Your task to perform on an android device: toggle data saver in the chrome app Image 0: 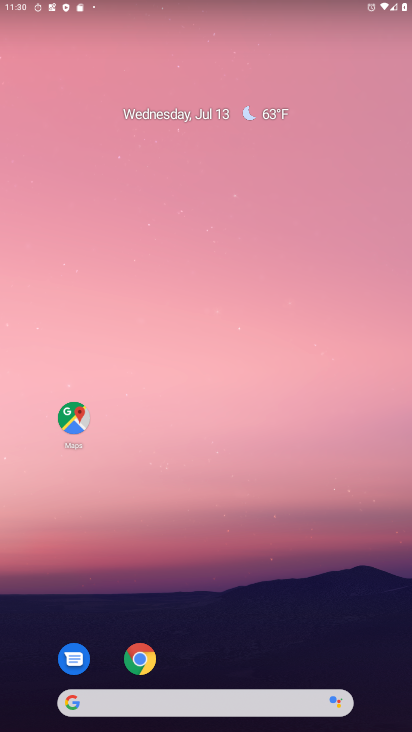
Step 0: drag from (285, 649) to (308, 25)
Your task to perform on an android device: toggle data saver in the chrome app Image 1: 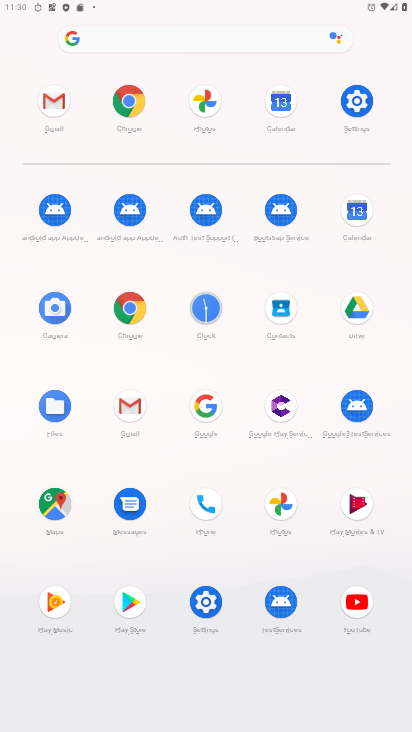
Step 1: click (128, 304)
Your task to perform on an android device: toggle data saver in the chrome app Image 2: 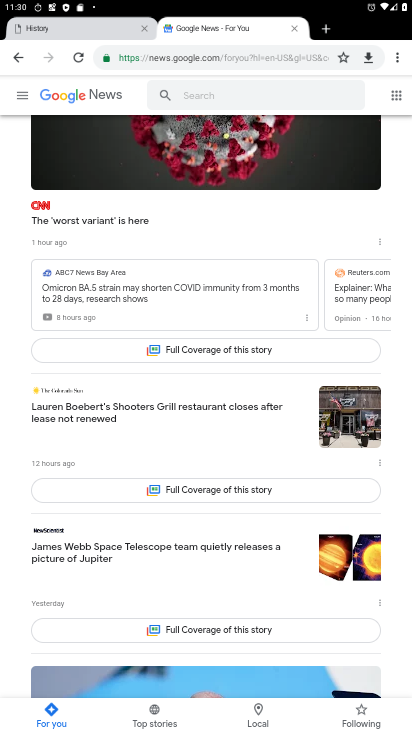
Step 2: drag from (399, 60) to (291, 386)
Your task to perform on an android device: toggle data saver in the chrome app Image 3: 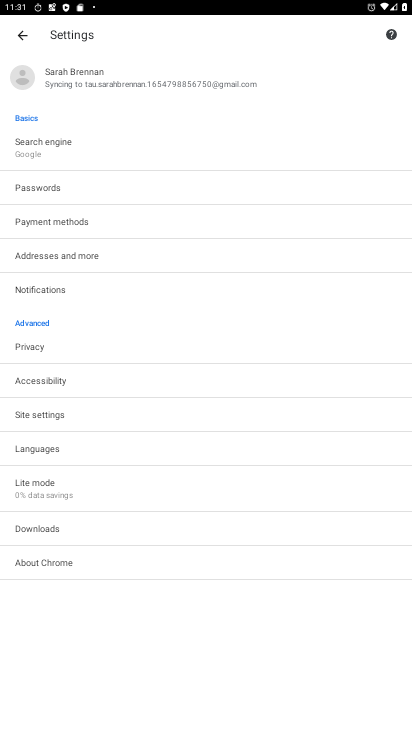
Step 3: click (70, 499)
Your task to perform on an android device: toggle data saver in the chrome app Image 4: 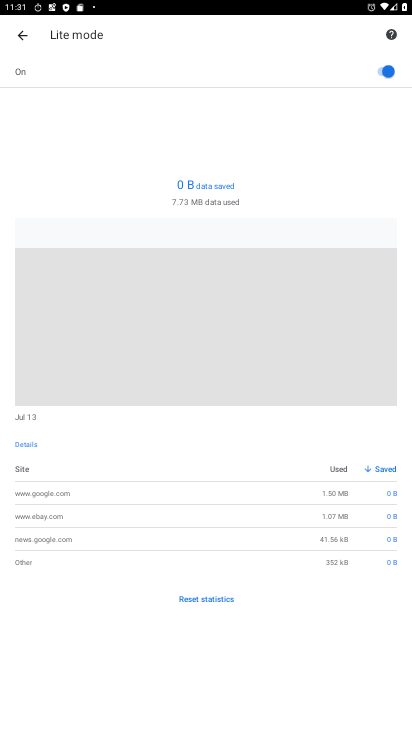
Step 4: click (380, 69)
Your task to perform on an android device: toggle data saver in the chrome app Image 5: 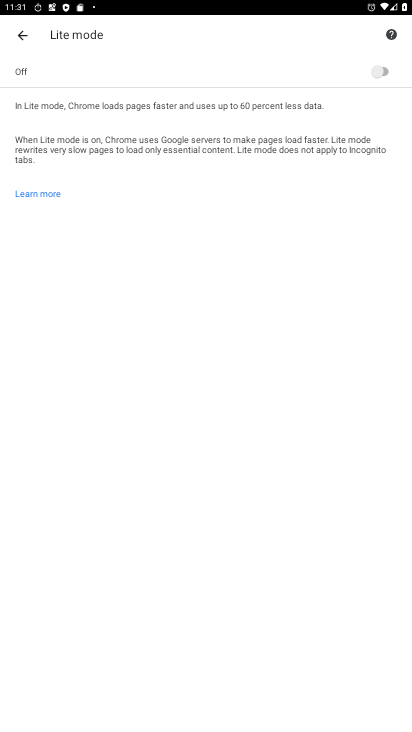
Step 5: task complete